Your task to perform on an android device: move a message to another label in the gmail app Image 0: 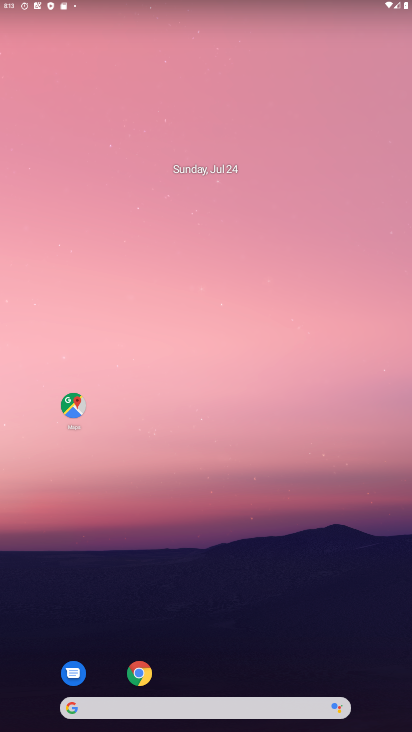
Step 0: drag from (175, 552) to (180, 102)
Your task to perform on an android device: move a message to another label in the gmail app Image 1: 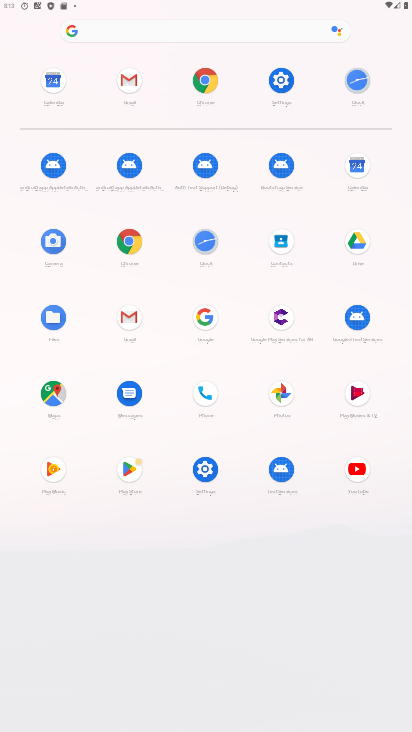
Step 1: click (122, 323)
Your task to perform on an android device: move a message to another label in the gmail app Image 2: 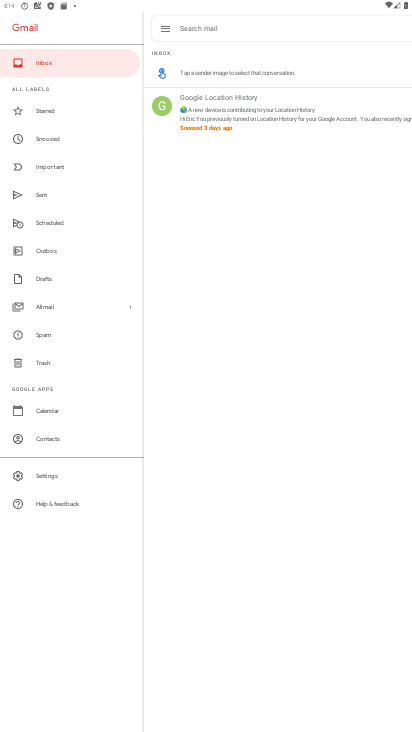
Step 2: drag from (278, 628) to (222, 380)
Your task to perform on an android device: move a message to another label in the gmail app Image 3: 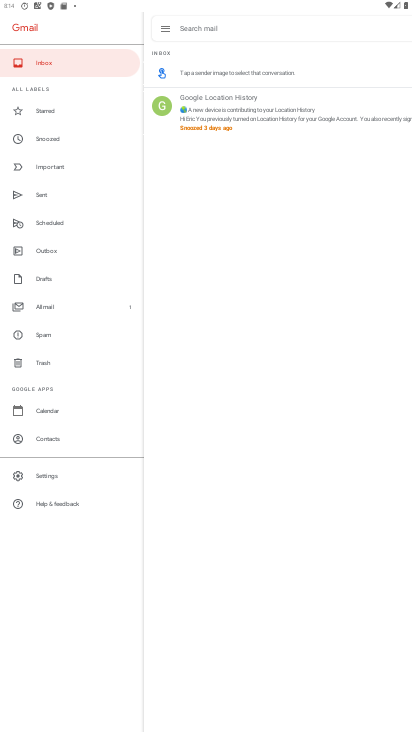
Step 3: click (32, 73)
Your task to perform on an android device: move a message to another label in the gmail app Image 4: 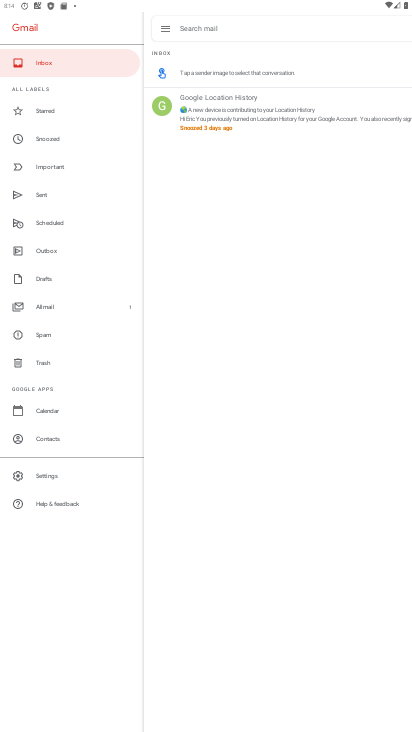
Step 4: drag from (317, 452) to (253, 324)
Your task to perform on an android device: move a message to another label in the gmail app Image 5: 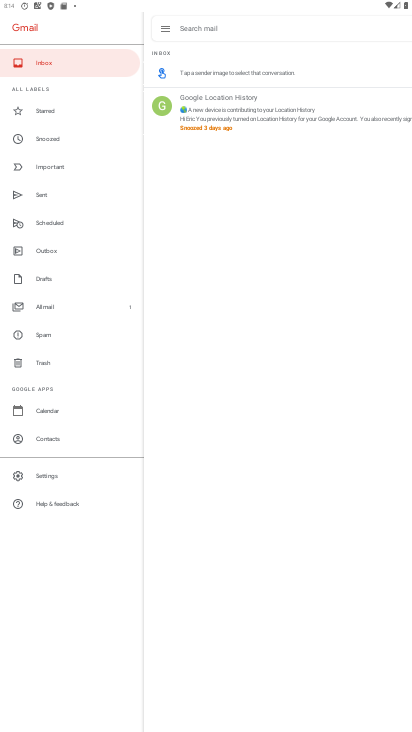
Step 5: click (260, 113)
Your task to perform on an android device: move a message to another label in the gmail app Image 6: 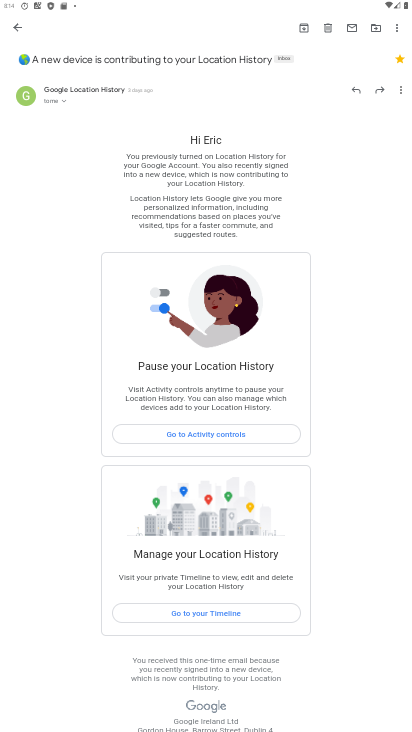
Step 6: click (395, 29)
Your task to perform on an android device: move a message to another label in the gmail app Image 7: 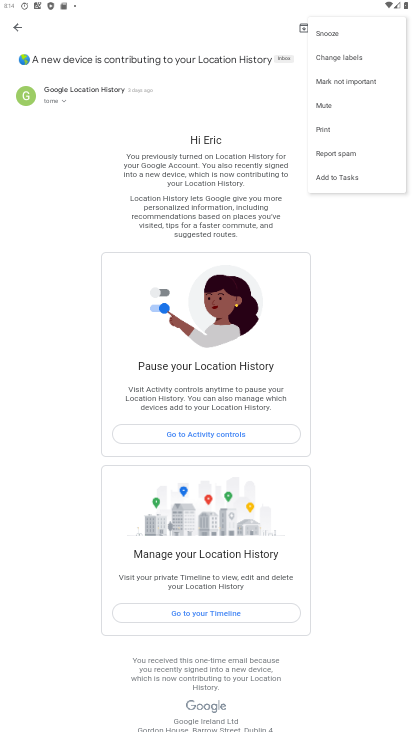
Step 7: drag from (169, 587) to (243, 218)
Your task to perform on an android device: move a message to another label in the gmail app Image 8: 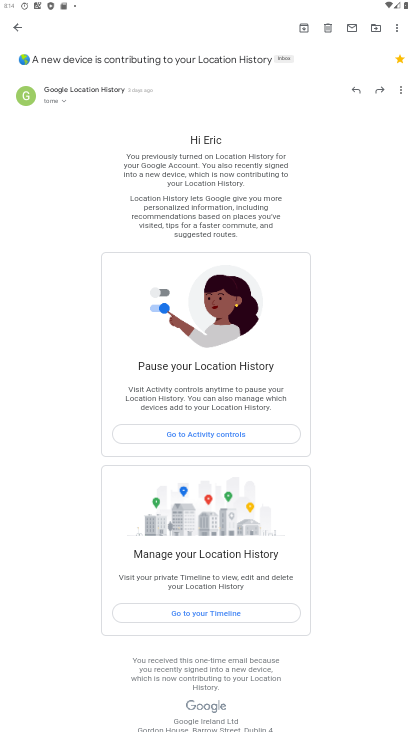
Step 8: drag from (249, 147) to (309, 724)
Your task to perform on an android device: move a message to another label in the gmail app Image 9: 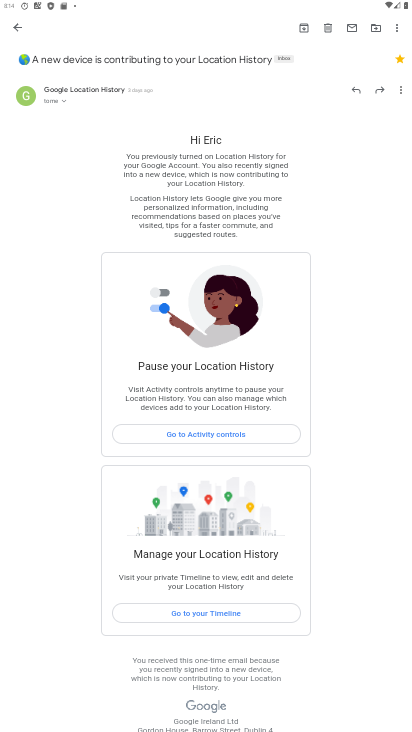
Step 9: drag from (231, 501) to (219, 324)
Your task to perform on an android device: move a message to another label in the gmail app Image 10: 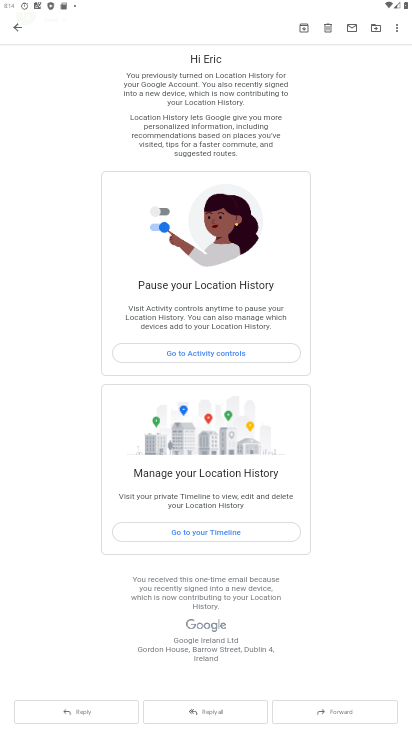
Step 10: drag from (293, 195) to (226, 720)
Your task to perform on an android device: move a message to another label in the gmail app Image 11: 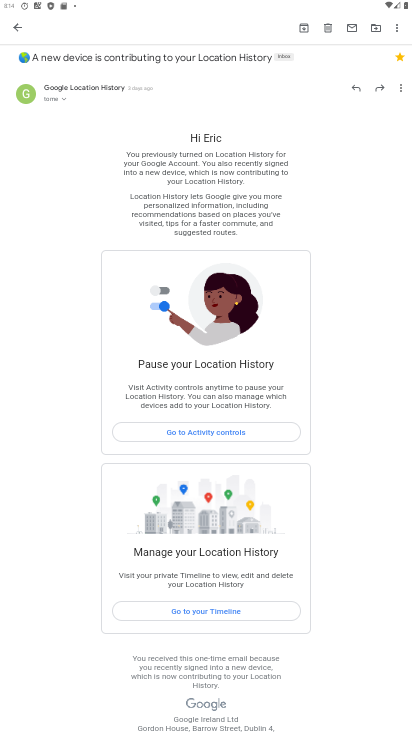
Step 11: drag from (403, 29) to (349, 56)
Your task to perform on an android device: move a message to another label in the gmail app Image 12: 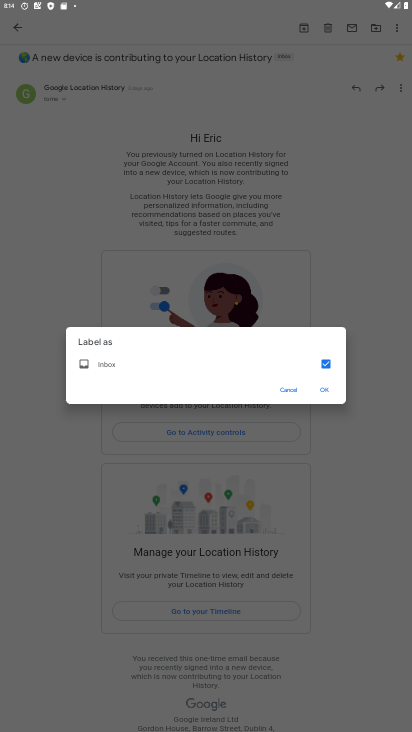
Step 12: click (329, 391)
Your task to perform on an android device: move a message to another label in the gmail app Image 13: 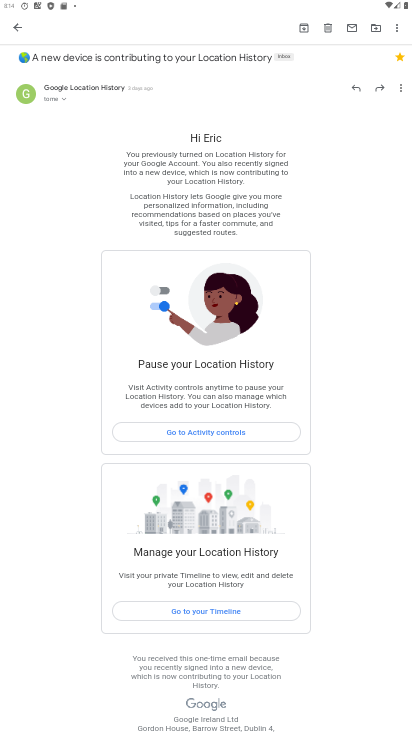
Step 13: task complete